Your task to perform on an android device: Go to sound settings Image 0: 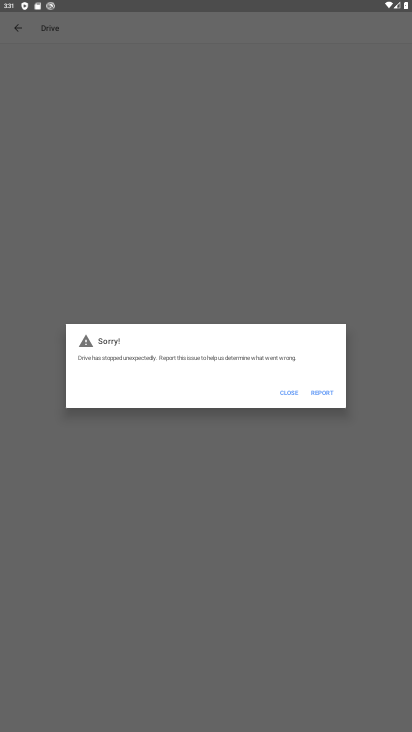
Step 0: press home button
Your task to perform on an android device: Go to sound settings Image 1: 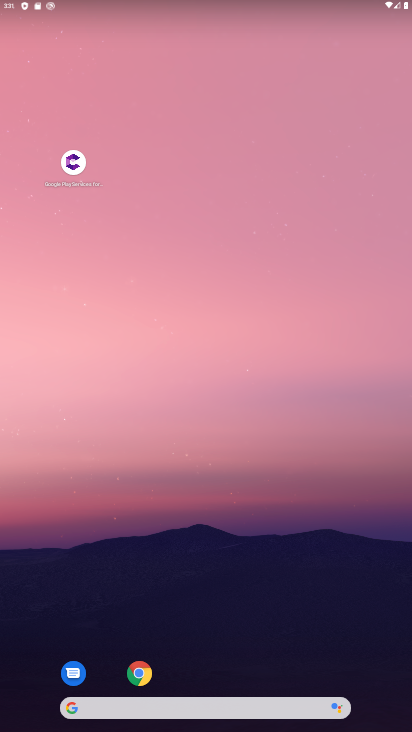
Step 1: drag from (188, 563) to (102, 7)
Your task to perform on an android device: Go to sound settings Image 2: 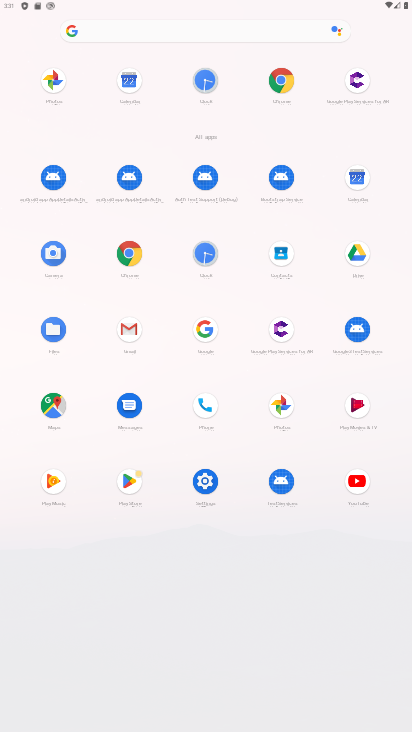
Step 2: click (206, 477)
Your task to perform on an android device: Go to sound settings Image 3: 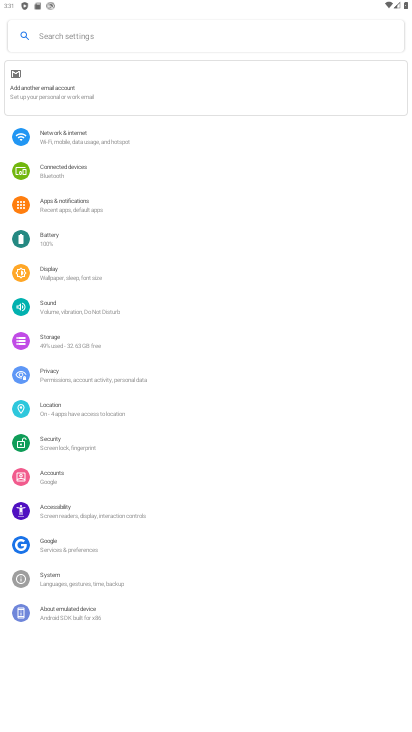
Step 3: click (47, 306)
Your task to perform on an android device: Go to sound settings Image 4: 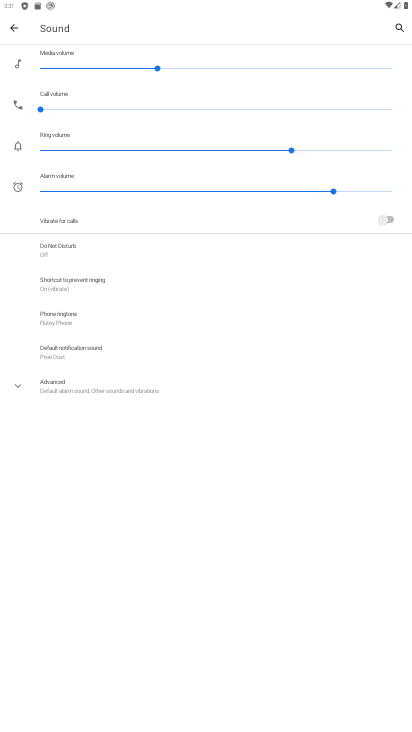
Step 4: task complete